Your task to perform on an android device: clear all cookies in the chrome app Image 0: 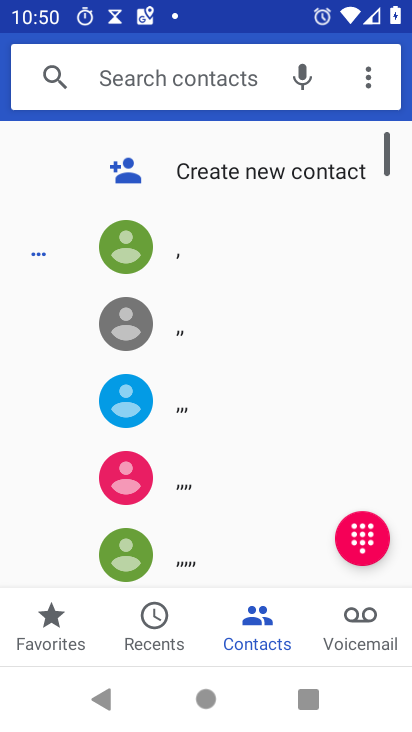
Step 0: press home button
Your task to perform on an android device: clear all cookies in the chrome app Image 1: 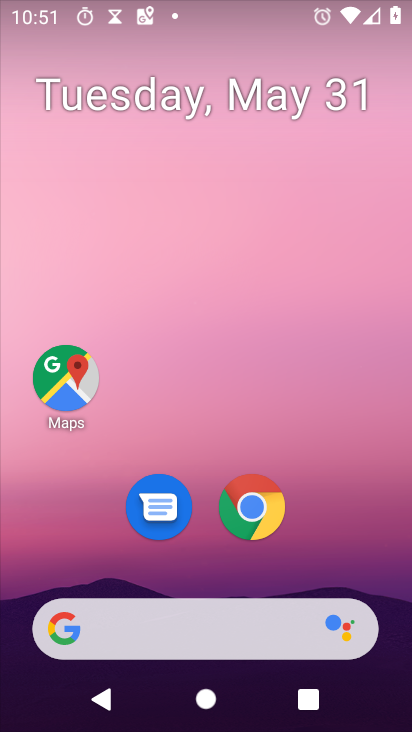
Step 1: drag from (37, 497) to (306, 88)
Your task to perform on an android device: clear all cookies in the chrome app Image 2: 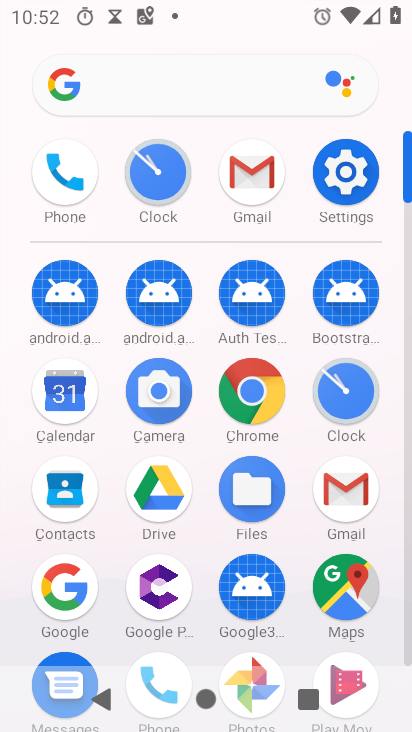
Step 2: click (245, 397)
Your task to perform on an android device: clear all cookies in the chrome app Image 3: 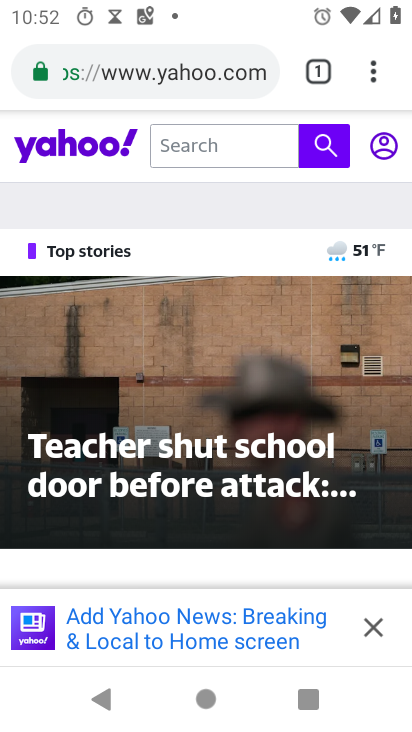
Step 3: click (390, 64)
Your task to perform on an android device: clear all cookies in the chrome app Image 4: 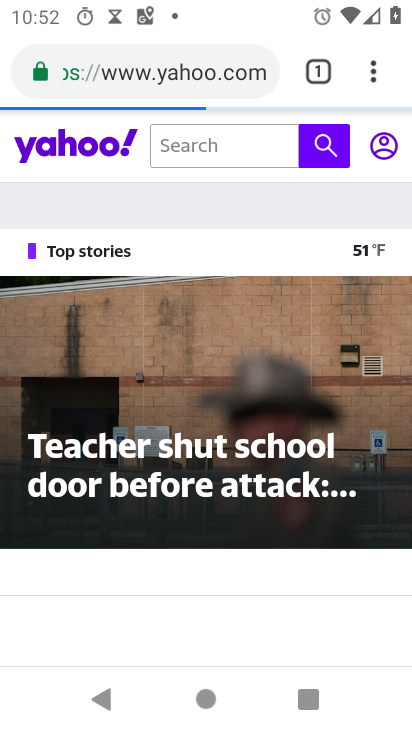
Step 4: click (370, 74)
Your task to perform on an android device: clear all cookies in the chrome app Image 5: 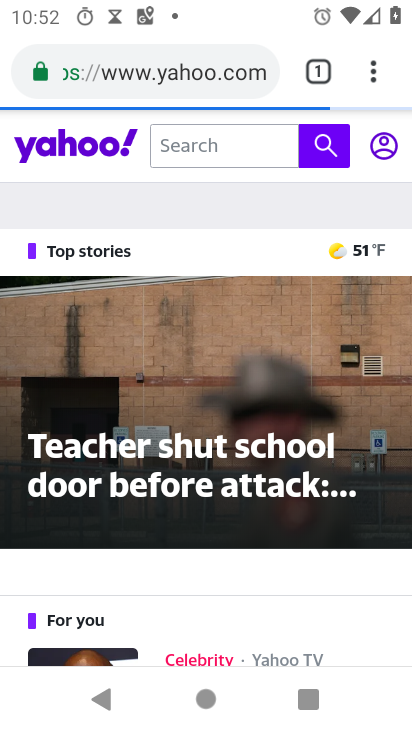
Step 5: click (378, 71)
Your task to perform on an android device: clear all cookies in the chrome app Image 6: 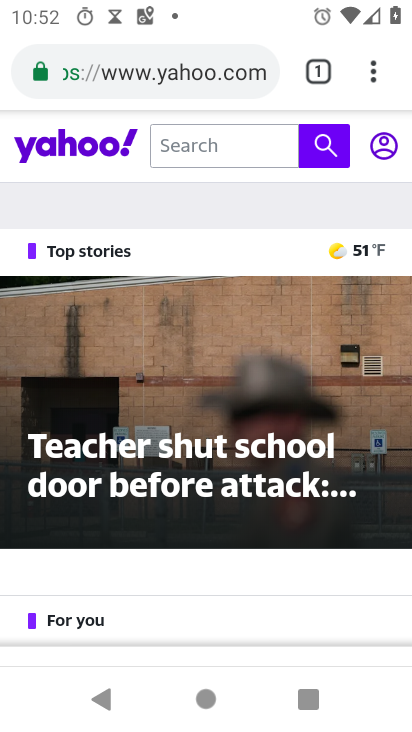
Step 6: click (388, 56)
Your task to perform on an android device: clear all cookies in the chrome app Image 7: 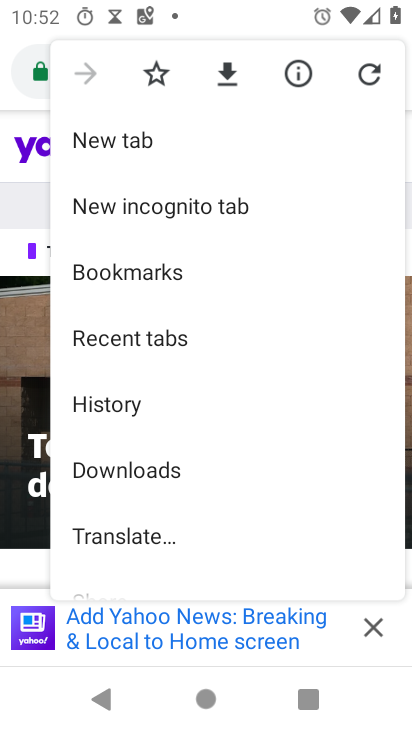
Step 7: click (171, 396)
Your task to perform on an android device: clear all cookies in the chrome app Image 8: 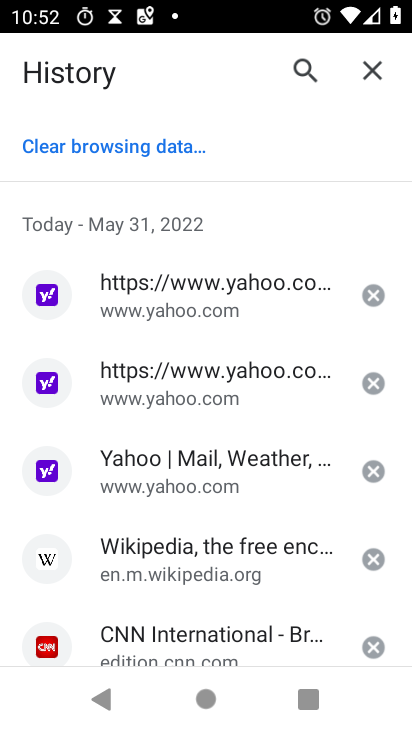
Step 8: click (142, 137)
Your task to perform on an android device: clear all cookies in the chrome app Image 9: 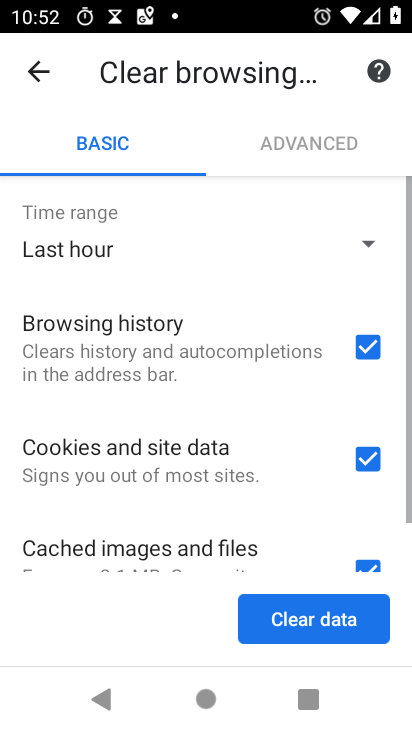
Step 9: click (371, 344)
Your task to perform on an android device: clear all cookies in the chrome app Image 10: 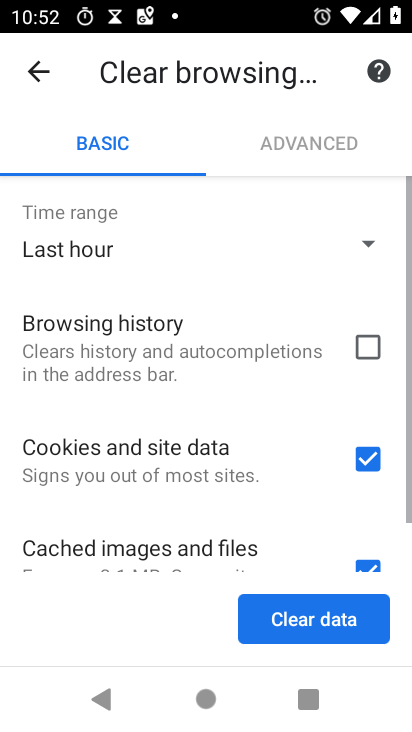
Step 10: drag from (146, 548) to (236, 235)
Your task to perform on an android device: clear all cookies in the chrome app Image 11: 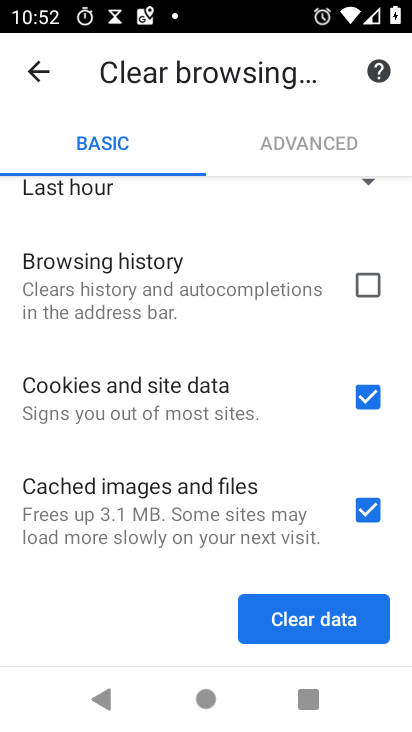
Step 11: click (375, 516)
Your task to perform on an android device: clear all cookies in the chrome app Image 12: 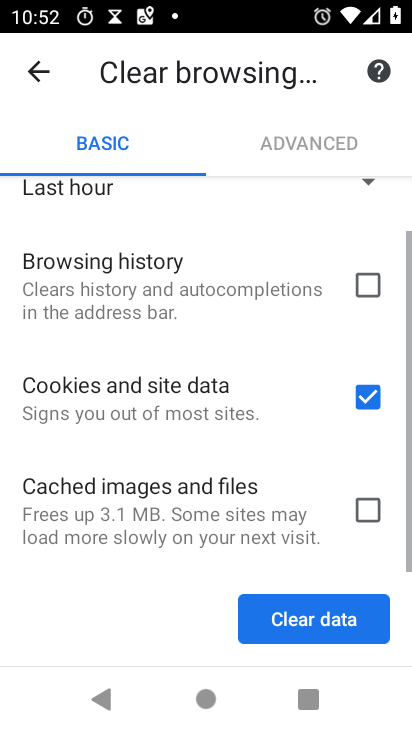
Step 12: click (347, 626)
Your task to perform on an android device: clear all cookies in the chrome app Image 13: 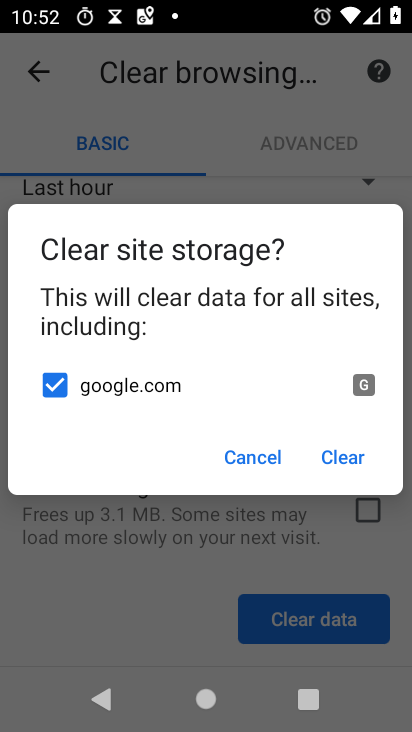
Step 13: click (362, 449)
Your task to perform on an android device: clear all cookies in the chrome app Image 14: 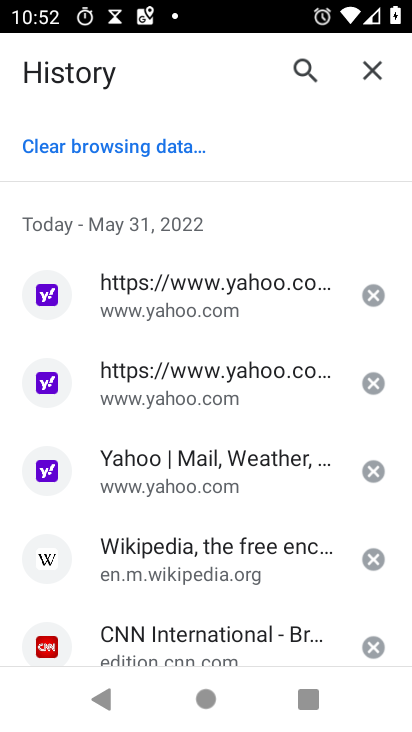
Step 14: task complete